Your task to perform on an android device: Open the Play Movies app and select the watchlist tab. Image 0: 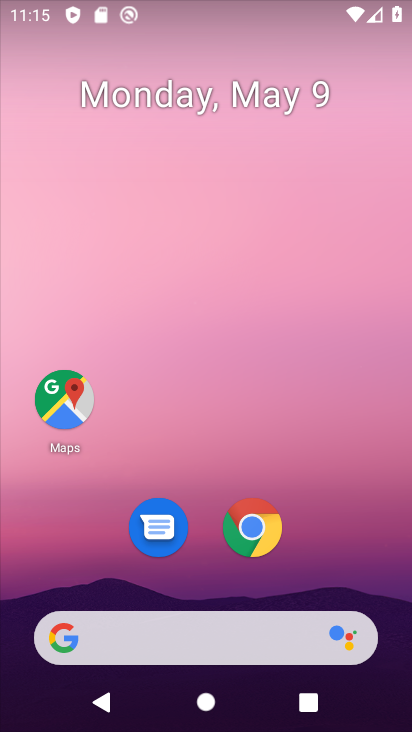
Step 0: drag from (173, 606) to (258, 156)
Your task to perform on an android device: Open the Play Movies app and select the watchlist tab. Image 1: 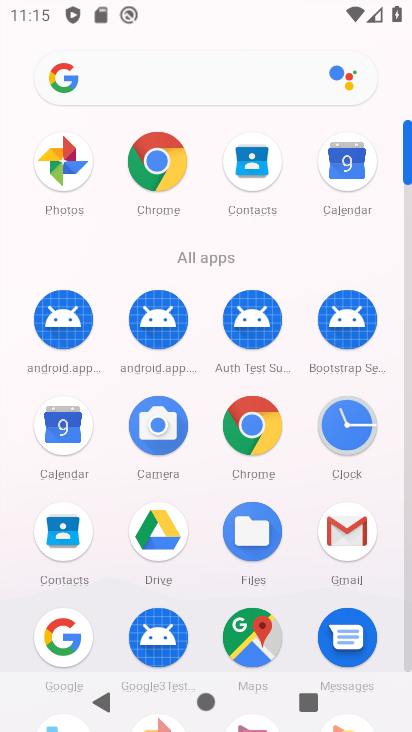
Step 1: drag from (230, 631) to (289, 387)
Your task to perform on an android device: Open the Play Movies app and select the watchlist tab. Image 2: 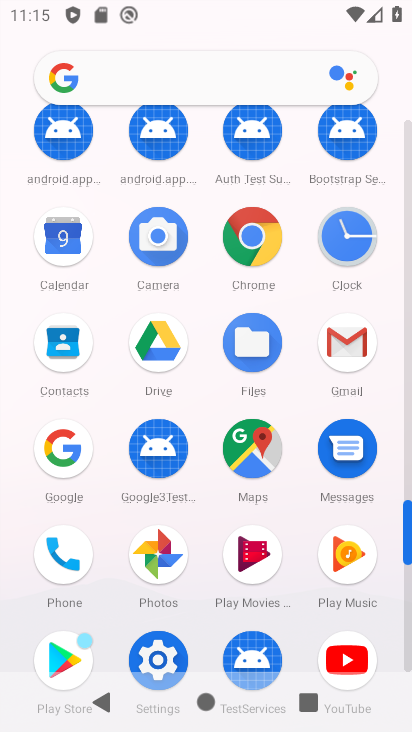
Step 2: click (247, 564)
Your task to perform on an android device: Open the Play Movies app and select the watchlist tab. Image 3: 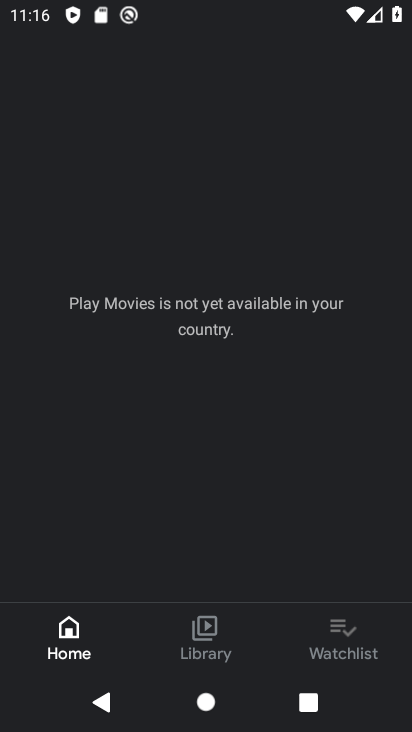
Step 3: click (322, 625)
Your task to perform on an android device: Open the Play Movies app and select the watchlist tab. Image 4: 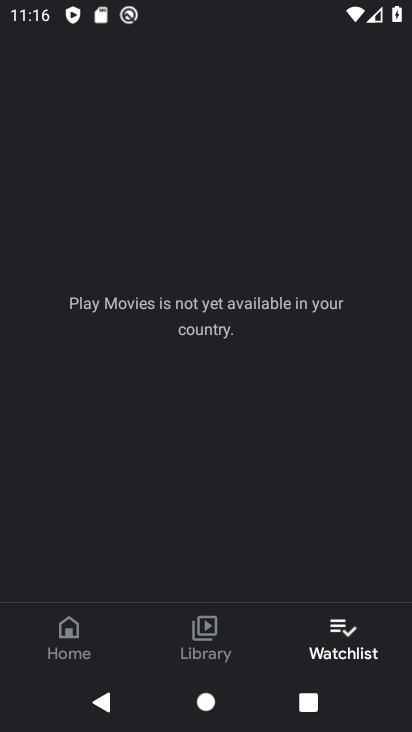
Step 4: task complete